Your task to perform on an android device: turn off wifi Image 0: 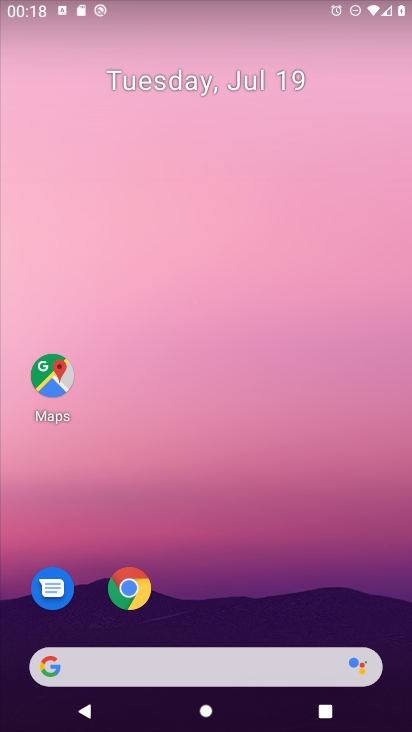
Step 0: drag from (380, 621) to (373, 53)
Your task to perform on an android device: turn off wifi Image 1: 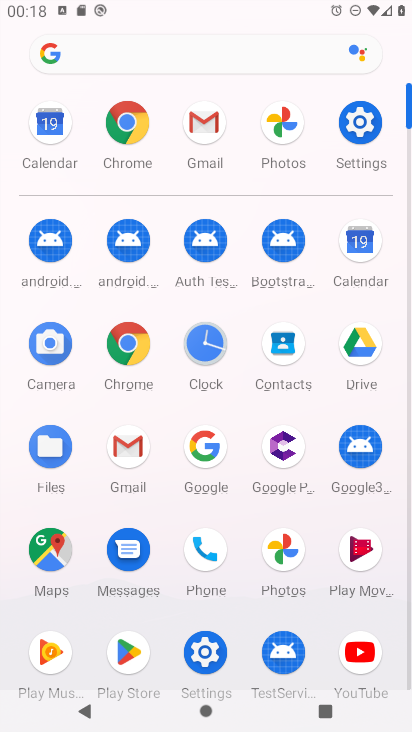
Step 1: click (205, 653)
Your task to perform on an android device: turn off wifi Image 2: 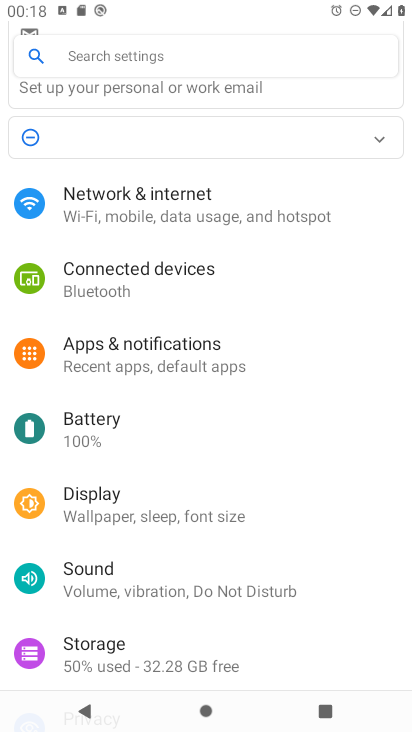
Step 2: click (120, 199)
Your task to perform on an android device: turn off wifi Image 3: 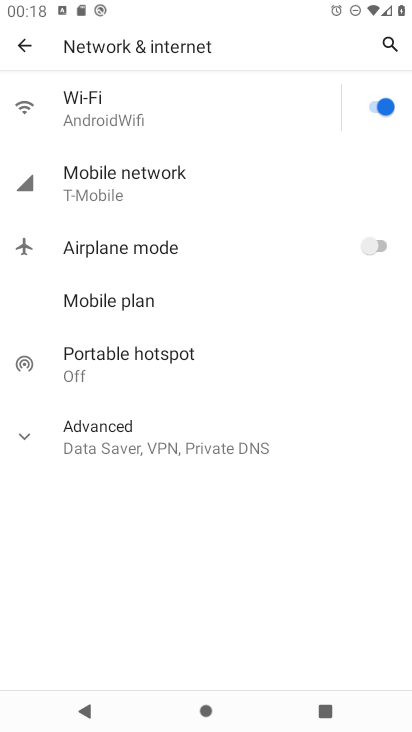
Step 3: click (371, 106)
Your task to perform on an android device: turn off wifi Image 4: 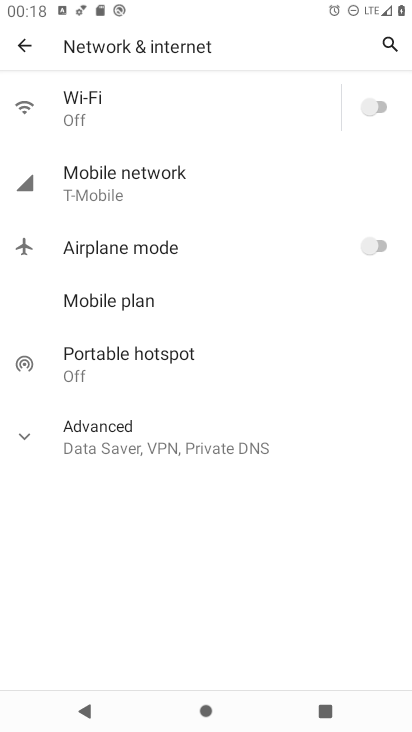
Step 4: task complete